Your task to perform on an android device: search for starred emails in the gmail app Image 0: 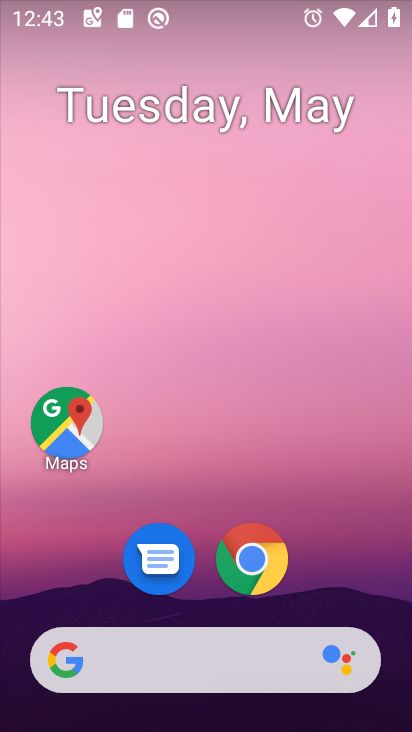
Step 0: drag from (348, 583) to (265, 8)
Your task to perform on an android device: search for starred emails in the gmail app Image 1: 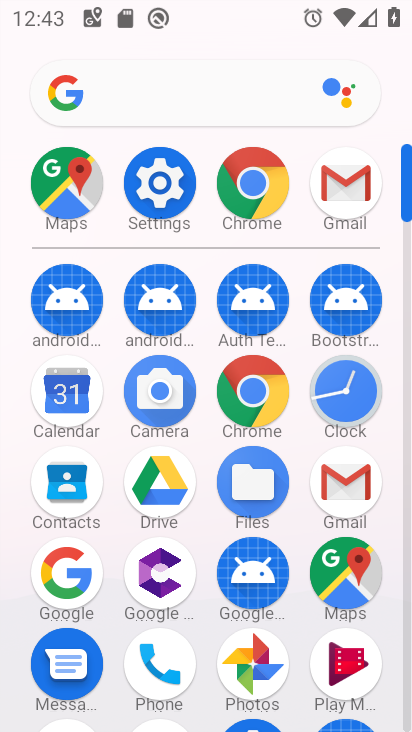
Step 1: click (354, 209)
Your task to perform on an android device: search for starred emails in the gmail app Image 2: 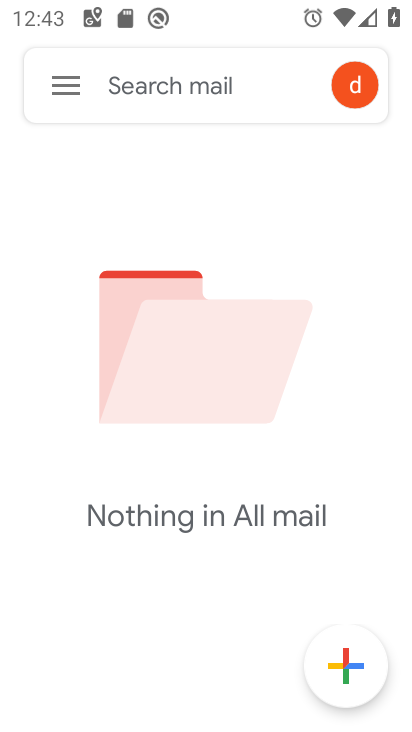
Step 2: click (76, 86)
Your task to perform on an android device: search for starred emails in the gmail app Image 3: 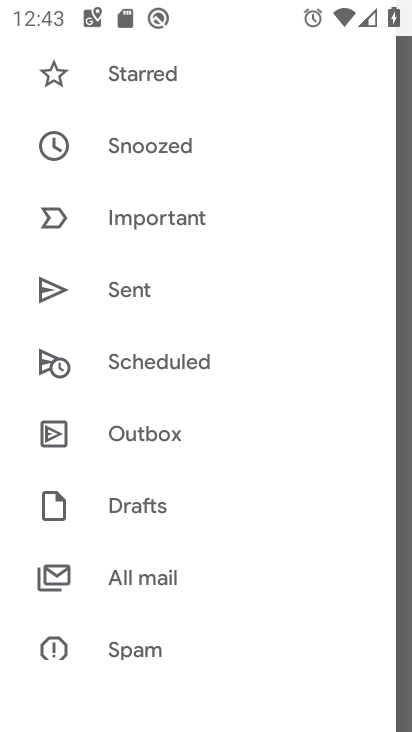
Step 3: click (172, 80)
Your task to perform on an android device: search for starred emails in the gmail app Image 4: 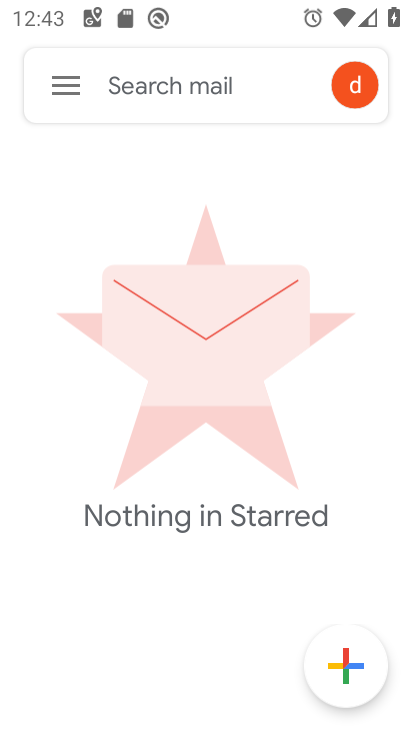
Step 4: task complete